Your task to perform on an android device: change text size in settings app Image 0: 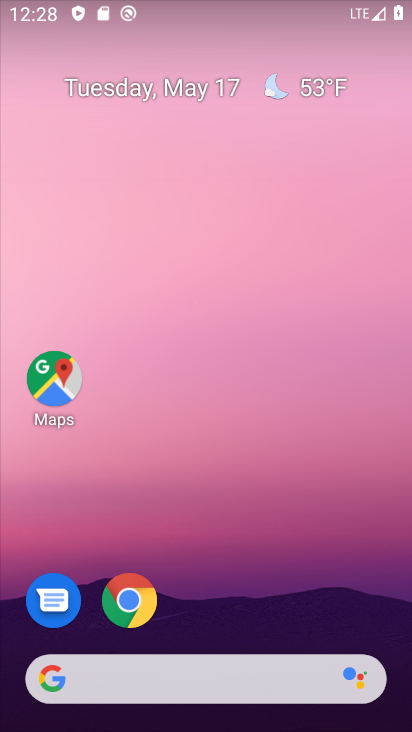
Step 0: drag from (219, 608) to (149, 4)
Your task to perform on an android device: change text size in settings app Image 1: 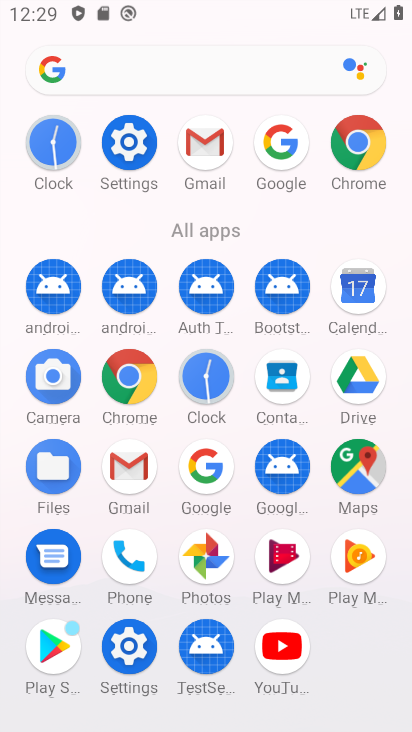
Step 1: click (127, 150)
Your task to perform on an android device: change text size in settings app Image 2: 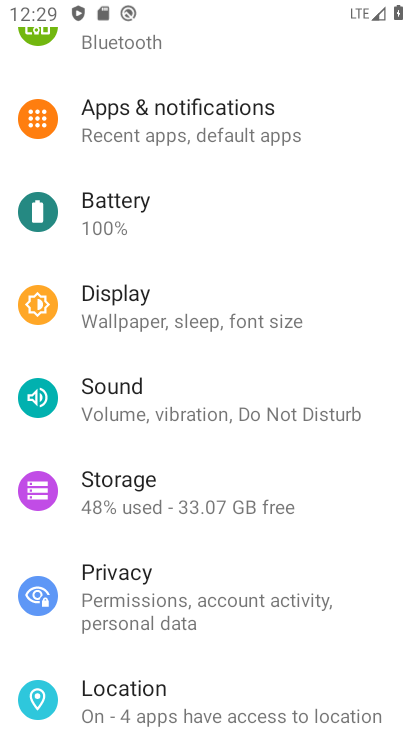
Step 2: drag from (176, 613) to (101, 200)
Your task to perform on an android device: change text size in settings app Image 3: 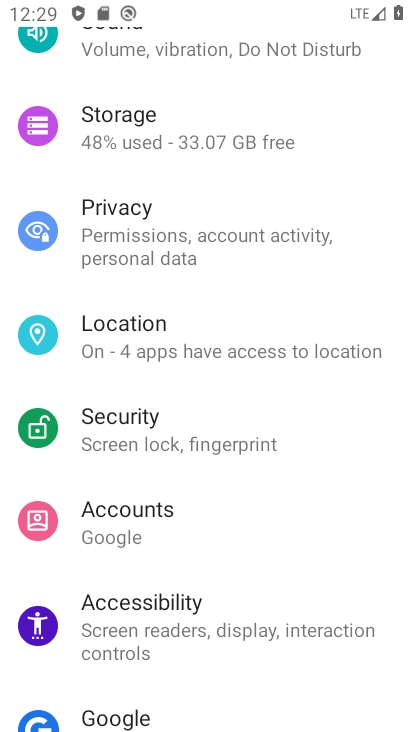
Step 3: click (117, 229)
Your task to perform on an android device: change text size in settings app Image 4: 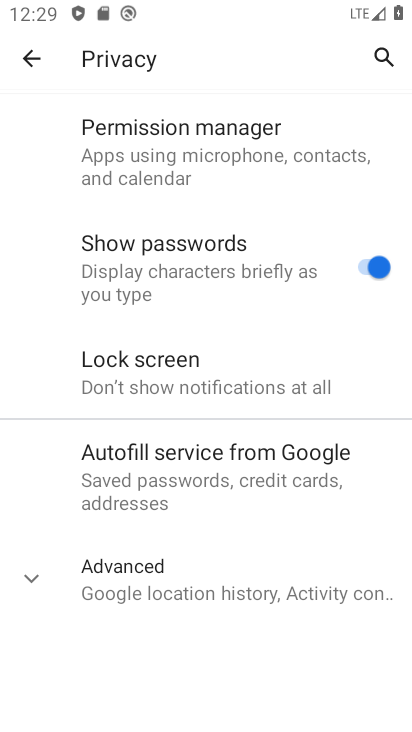
Step 4: click (33, 58)
Your task to perform on an android device: change text size in settings app Image 5: 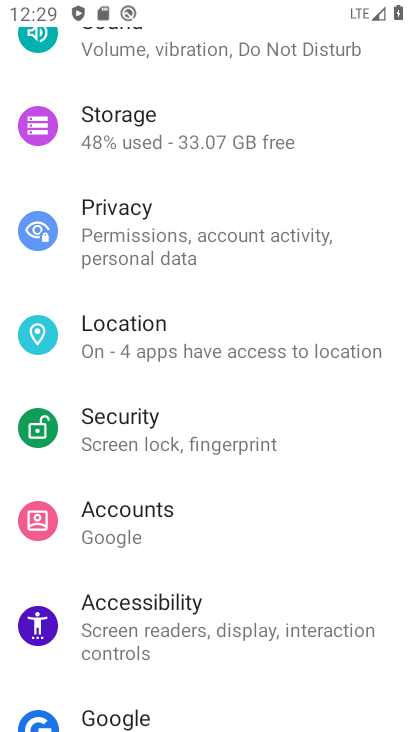
Step 5: drag from (209, 153) to (189, 584)
Your task to perform on an android device: change text size in settings app Image 6: 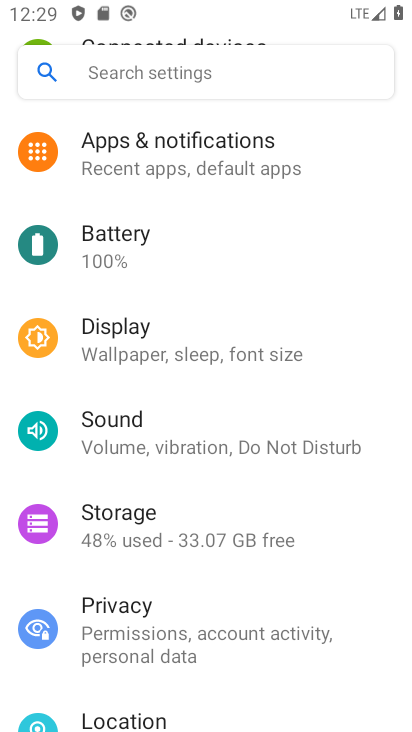
Step 6: click (109, 335)
Your task to perform on an android device: change text size in settings app Image 7: 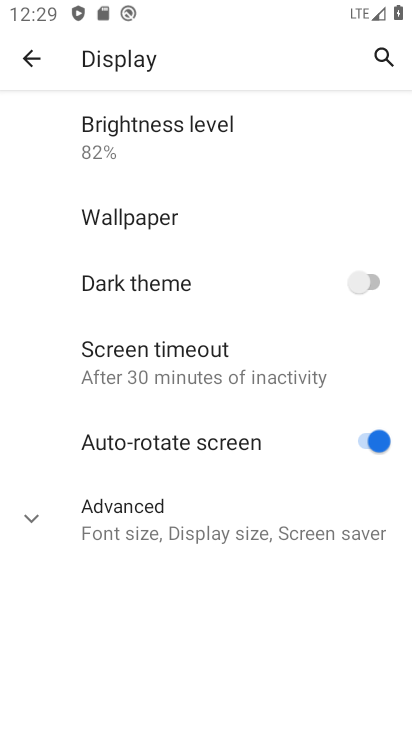
Step 7: click (146, 521)
Your task to perform on an android device: change text size in settings app Image 8: 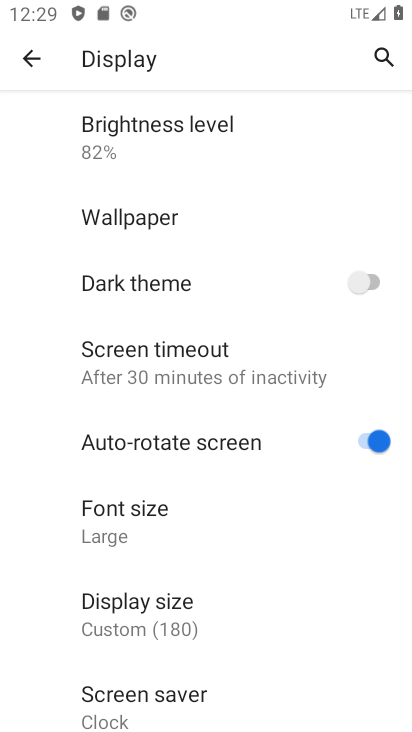
Step 8: click (104, 539)
Your task to perform on an android device: change text size in settings app Image 9: 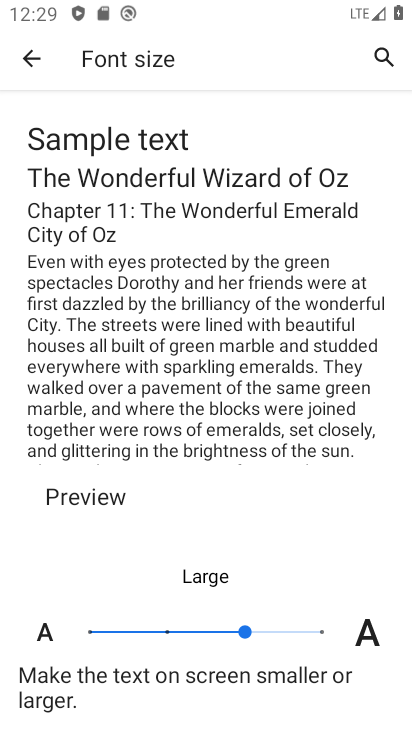
Step 9: click (168, 617)
Your task to perform on an android device: change text size in settings app Image 10: 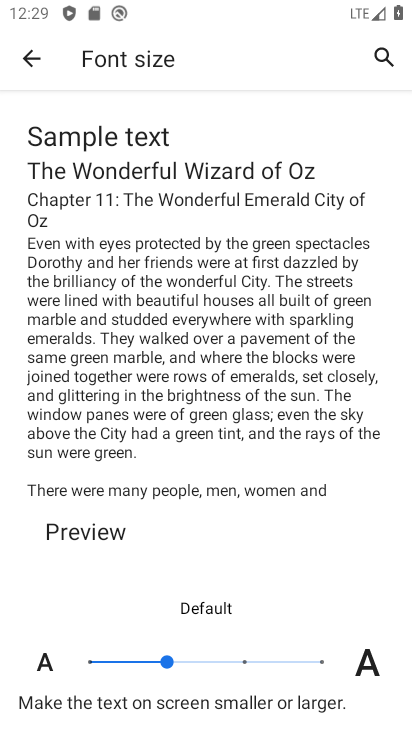
Step 10: task complete